Your task to perform on an android device: change alarm snooze length Image 0: 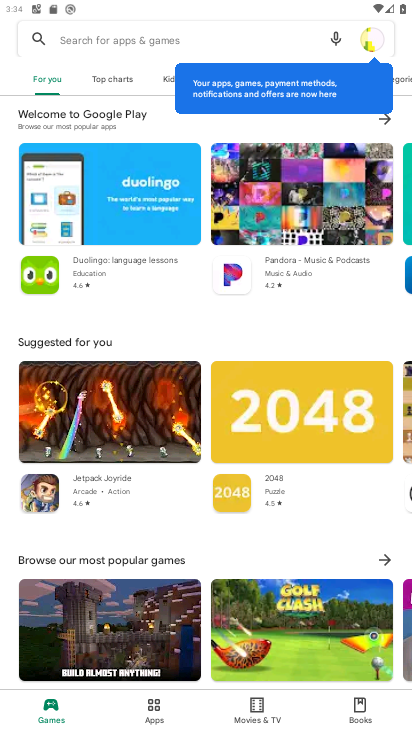
Step 0: press home button
Your task to perform on an android device: change alarm snooze length Image 1: 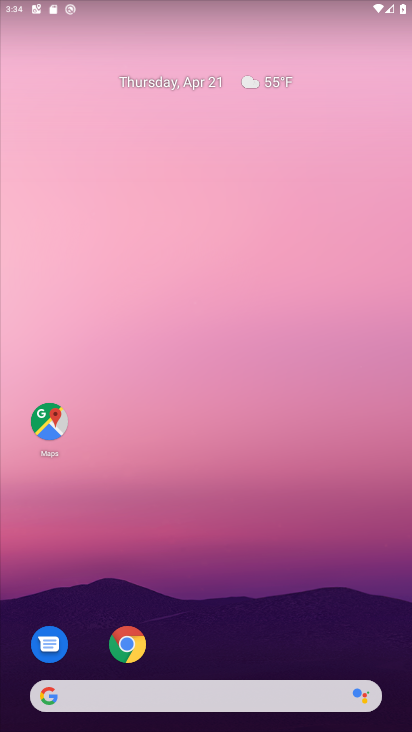
Step 1: drag from (196, 615) to (157, 115)
Your task to perform on an android device: change alarm snooze length Image 2: 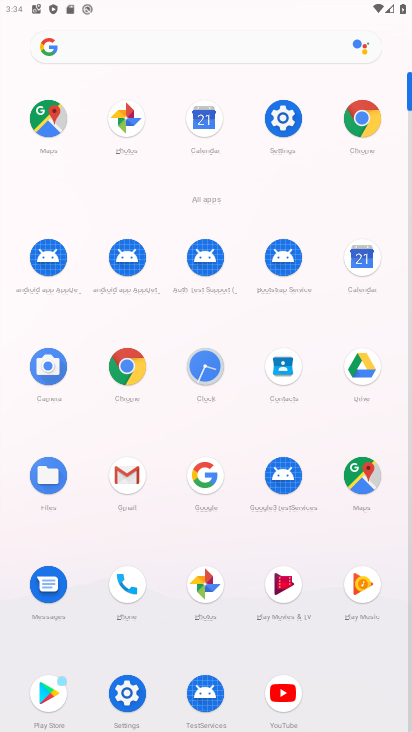
Step 2: click (275, 137)
Your task to perform on an android device: change alarm snooze length Image 3: 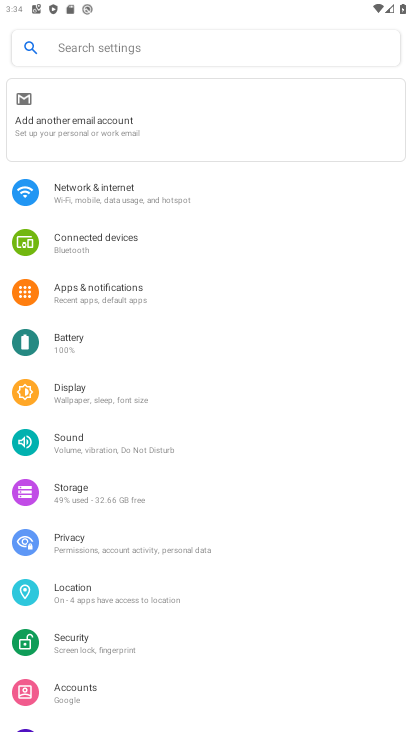
Step 3: press home button
Your task to perform on an android device: change alarm snooze length Image 4: 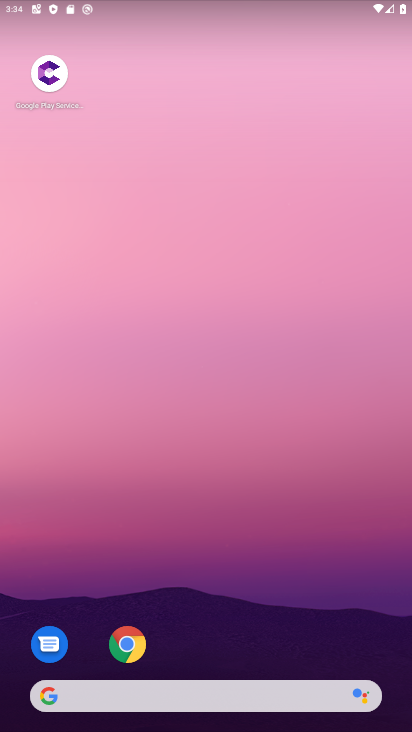
Step 4: drag from (221, 652) to (159, 90)
Your task to perform on an android device: change alarm snooze length Image 5: 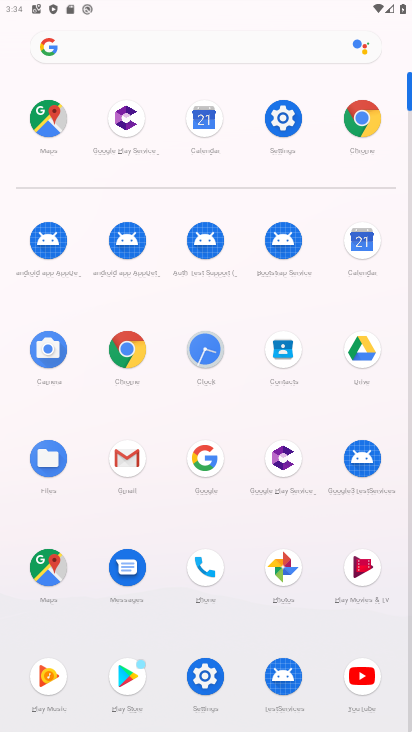
Step 5: click (206, 356)
Your task to perform on an android device: change alarm snooze length Image 6: 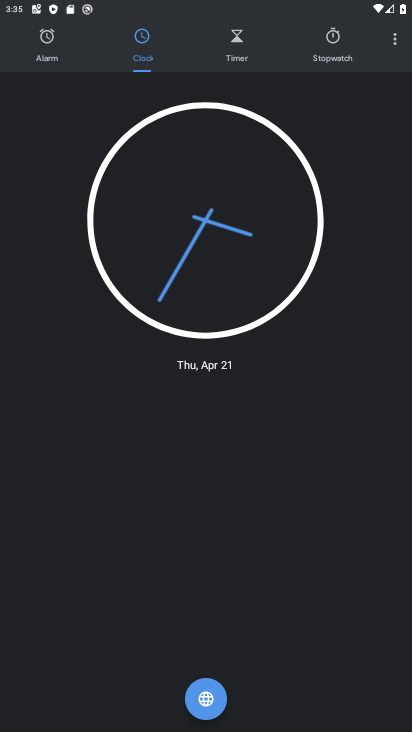
Step 6: click (397, 44)
Your task to perform on an android device: change alarm snooze length Image 7: 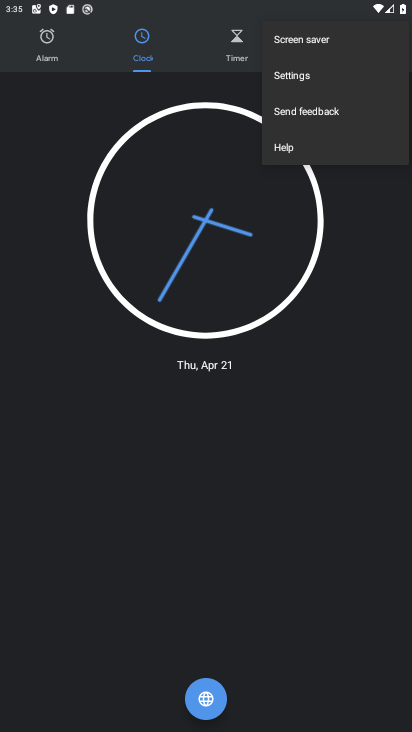
Step 7: click (315, 85)
Your task to perform on an android device: change alarm snooze length Image 8: 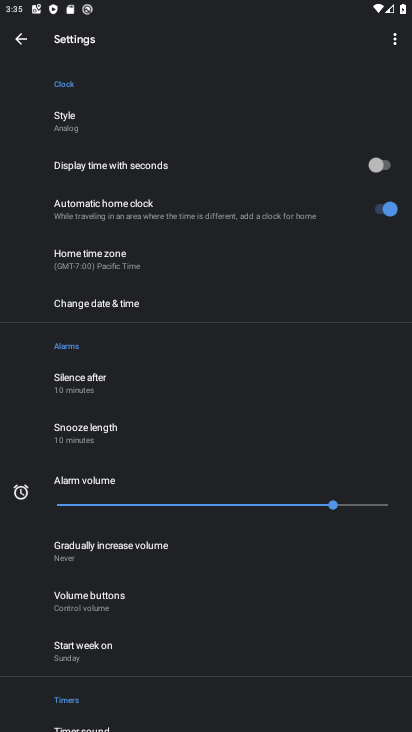
Step 8: click (95, 443)
Your task to perform on an android device: change alarm snooze length Image 9: 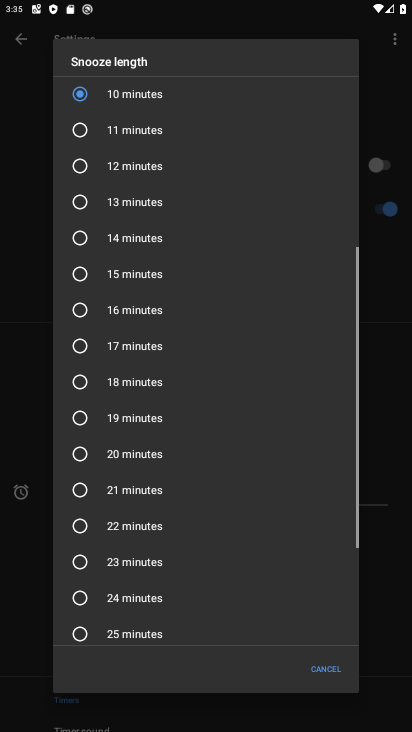
Step 9: click (73, 138)
Your task to perform on an android device: change alarm snooze length Image 10: 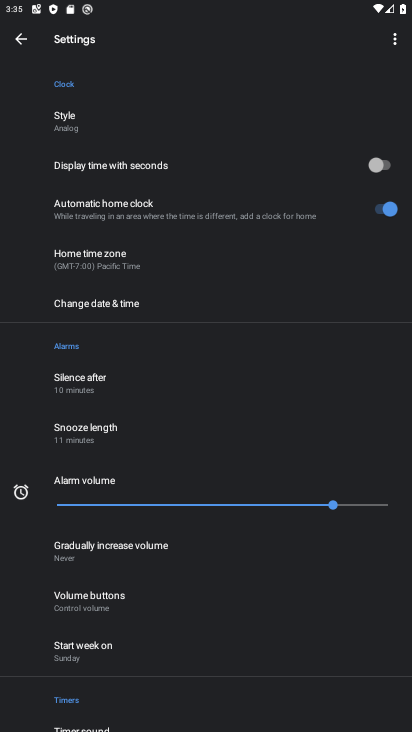
Step 10: task complete